Your task to perform on an android device: check out phone information Image 0: 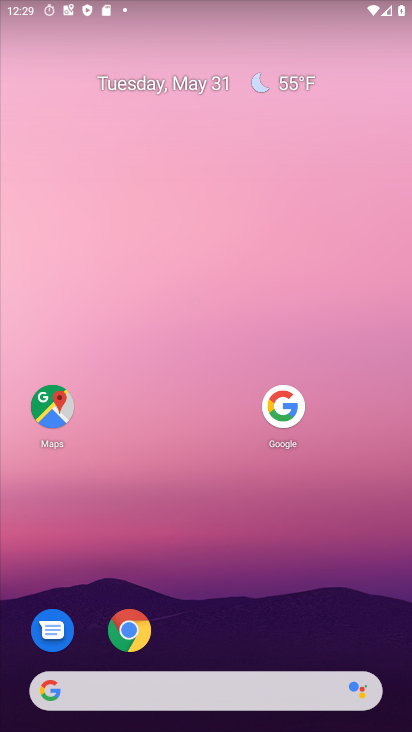
Step 0: drag from (246, 678) to (357, 142)
Your task to perform on an android device: check out phone information Image 1: 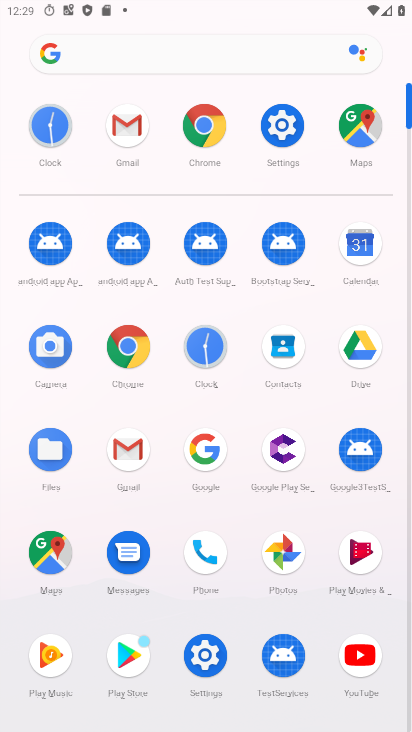
Step 1: click (285, 137)
Your task to perform on an android device: check out phone information Image 2: 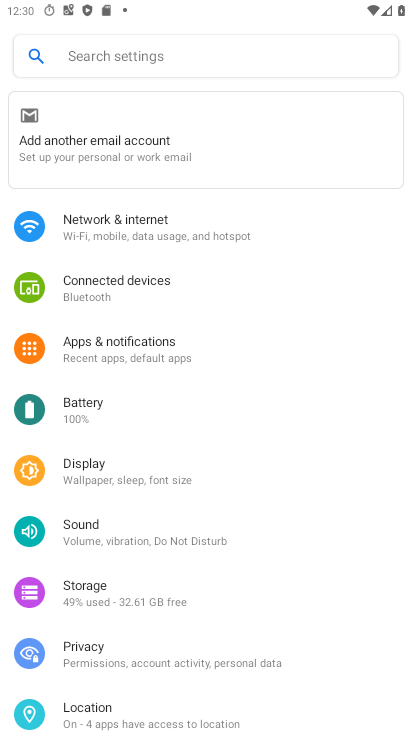
Step 2: drag from (293, 652) to (409, 94)
Your task to perform on an android device: check out phone information Image 3: 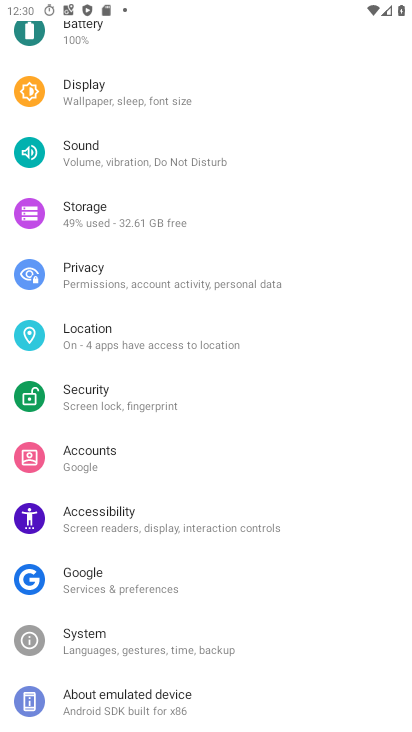
Step 3: click (172, 706)
Your task to perform on an android device: check out phone information Image 4: 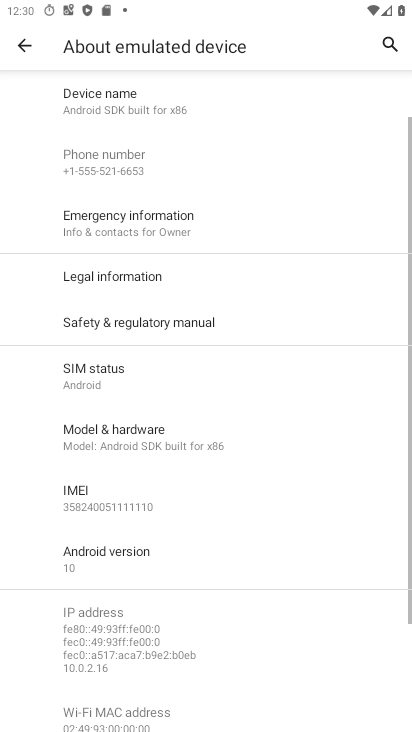
Step 4: task complete